Your task to perform on an android device: Open Google Image 0: 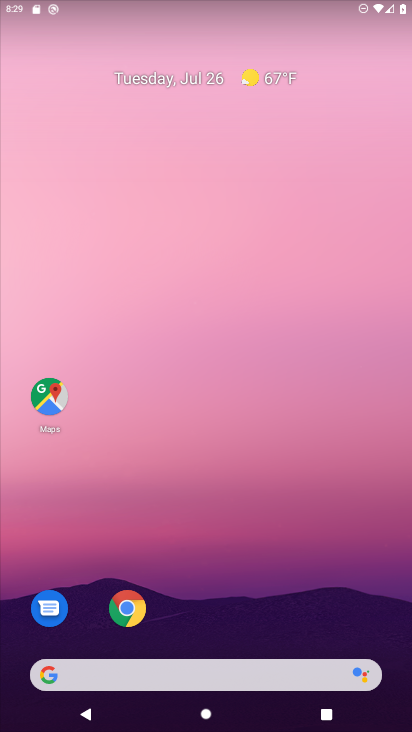
Step 0: click (52, 674)
Your task to perform on an android device: Open Google Image 1: 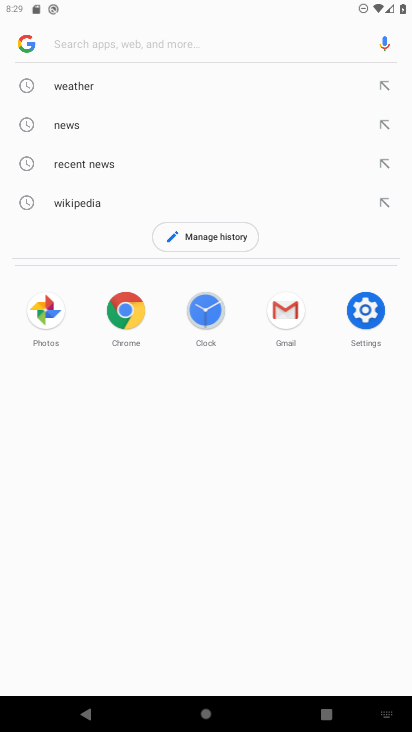
Step 1: click (19, 29)
Your task to perform on an android device: Open Google Image 2: 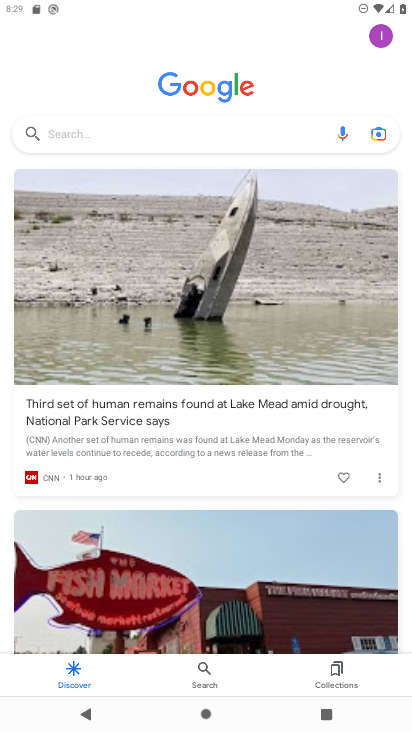
Step 2: task complete